Your task to perform on an android device: set an alarm Image 0: 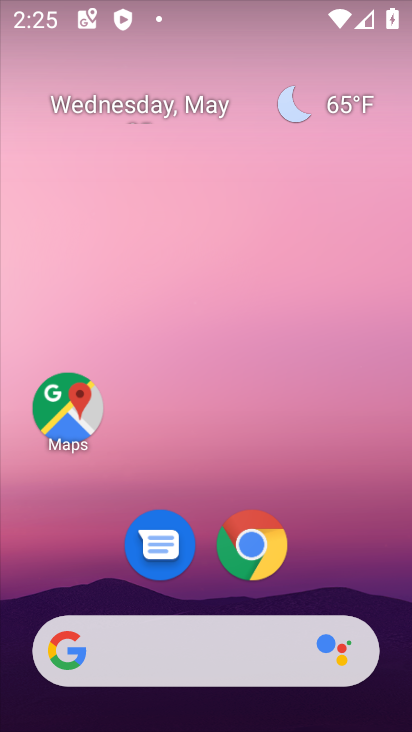
Step 0: press home button
Your task to perform on an android device: set an alarm Image 1: 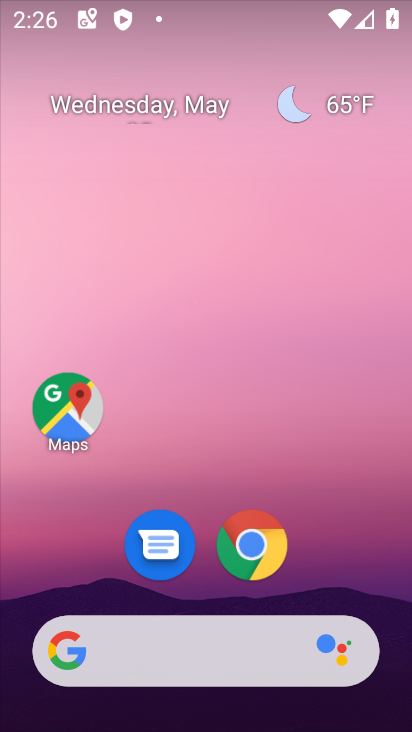
Step 1: drag from (339, 554) to (248, 8)
Your task to perform on an android device: set an alarm Image 2: 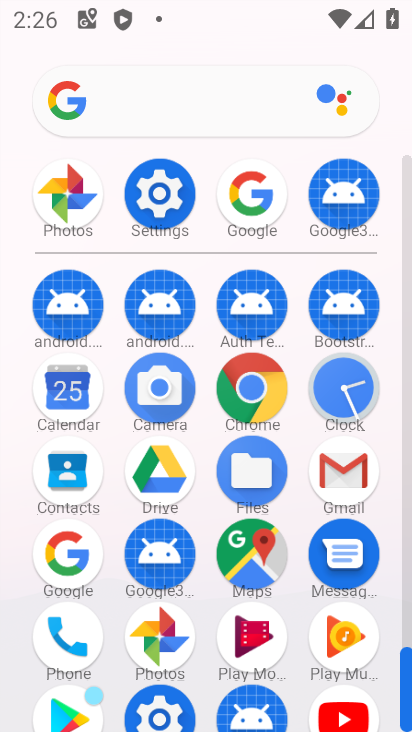
Step 2: click (340, 376)
Your task to perform on an android device: set an alarm Image 3: 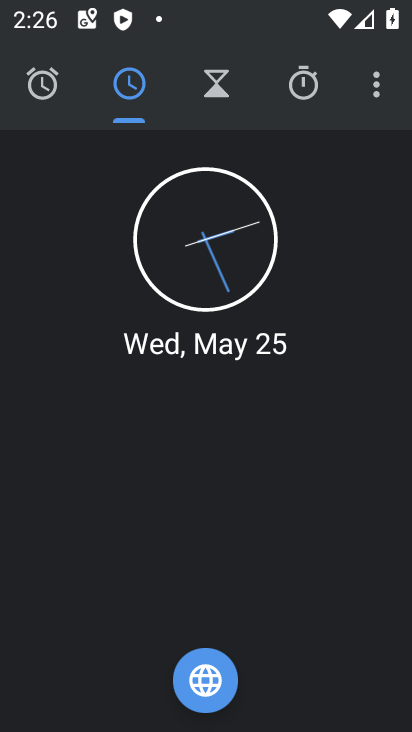
Step 3: click (42, 82)
Your task to perform on an android device: set an alarm Image 4: 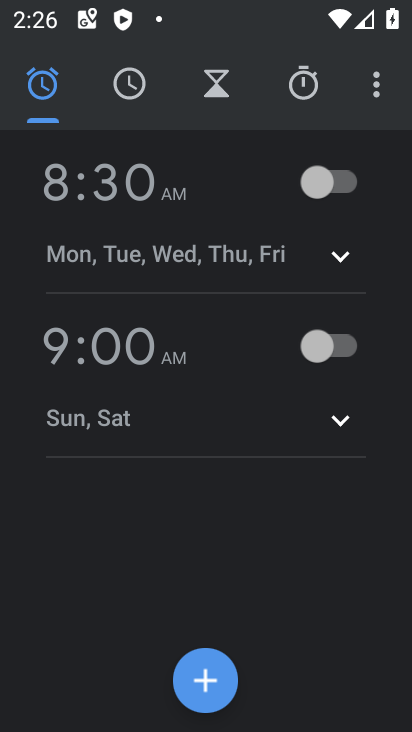
Step 4: click (343, 182)
Your task to perform on an android device: set an alarm Image 5: 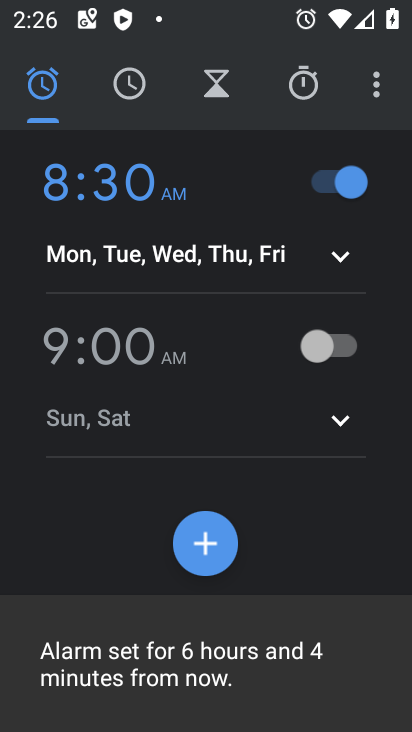
Step 5: task complete